Your task to perform on an android device: change the clock style Image 0: 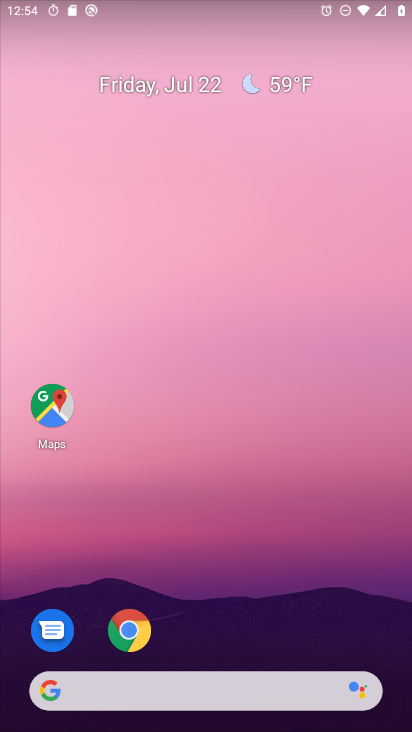
Step 0: press home button
Your task to perform on an android device: change the clock style Image 1: 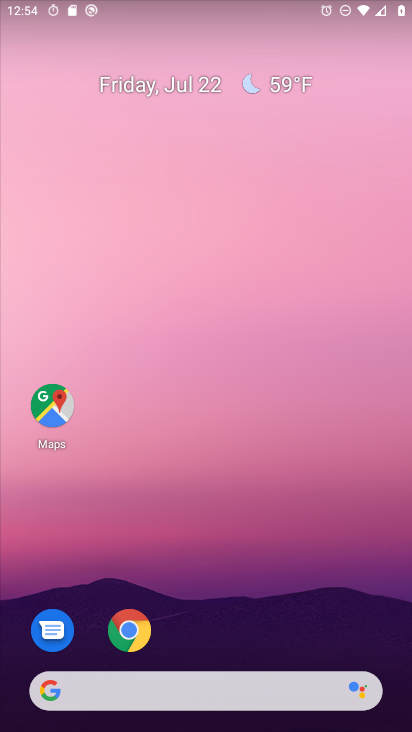
Step 1: drag from (282, 653) to (337, 173)
Your task to perform on an android device: change the clock style Image 2: 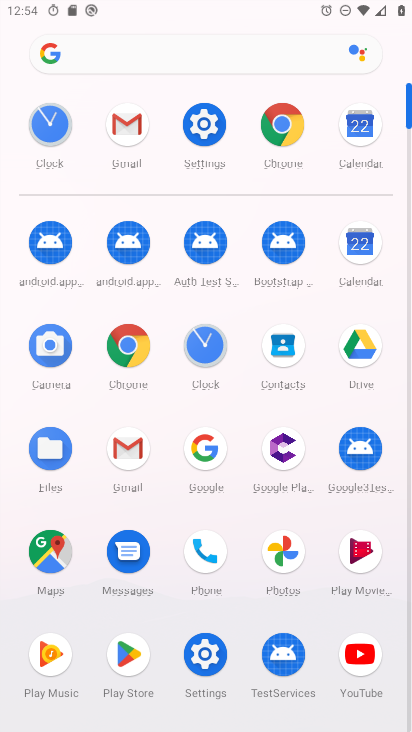
Step 2: click (197, 346)
Your task to perform on an android device: change the clock style Image 3: 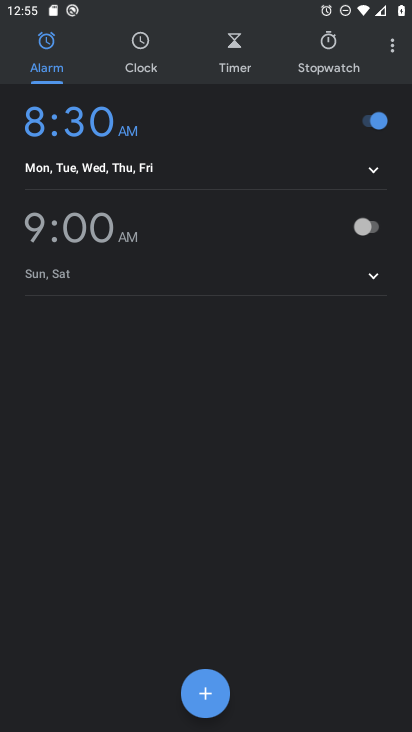
Step 3: click (394, 47)
Your task to perform on an android device: change the clock style Image 4: 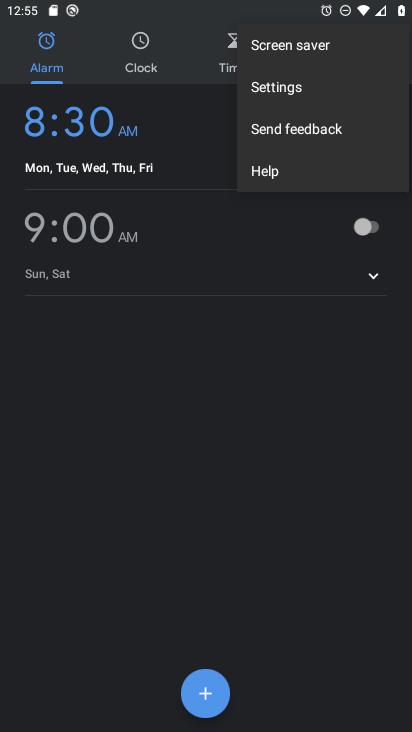
Step 4: click (312, 88)
Your task to perform on an android device: change the clock style Image 5: 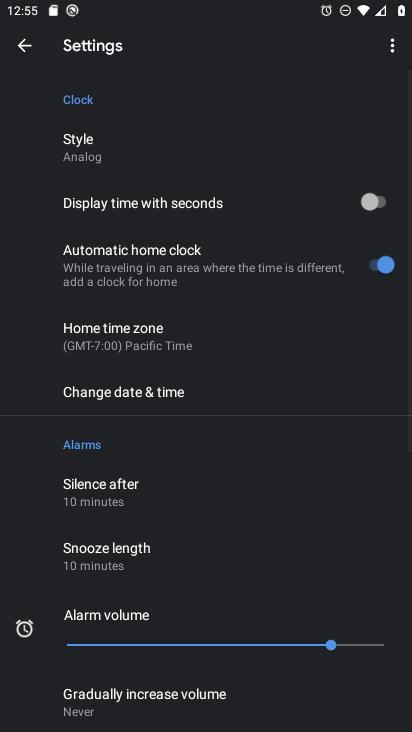
Step 5: click (83, 156)
Your task to perform on an android device: change the clock style Image 6: 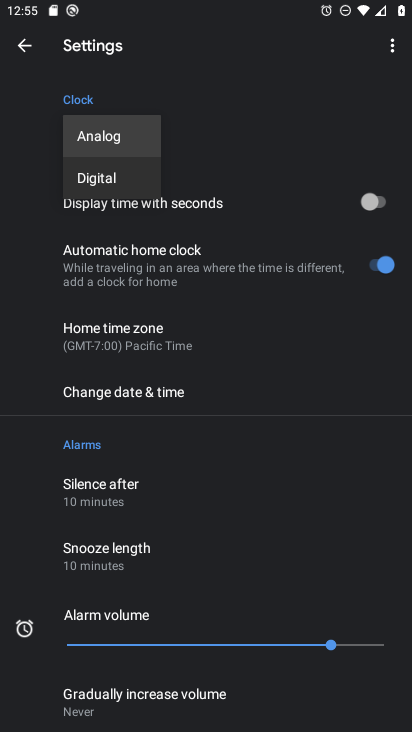
Step 6: click (89, 178)
Your task to perform on an android device: change the clock style Image 7: 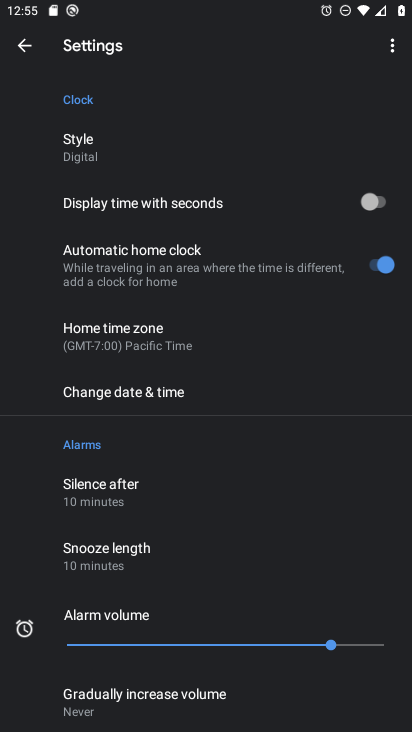
Step 7: task complete